Your task to perform on an android device: move a message to another label in the gmail app Image 0: 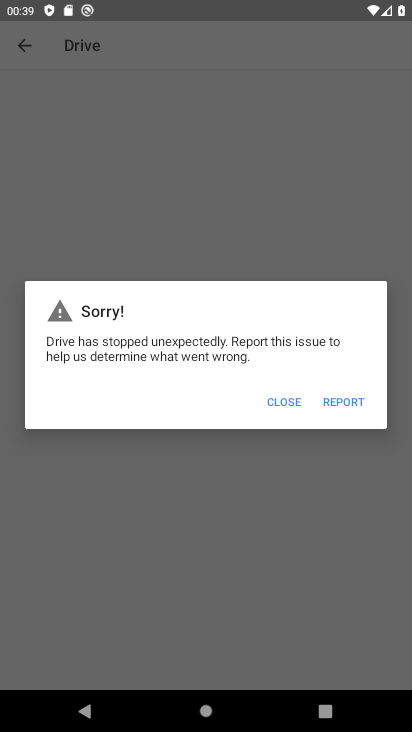
Step 0: press home button
Your task to perform on an android device: move a message to another label in the gmail app Image 1: 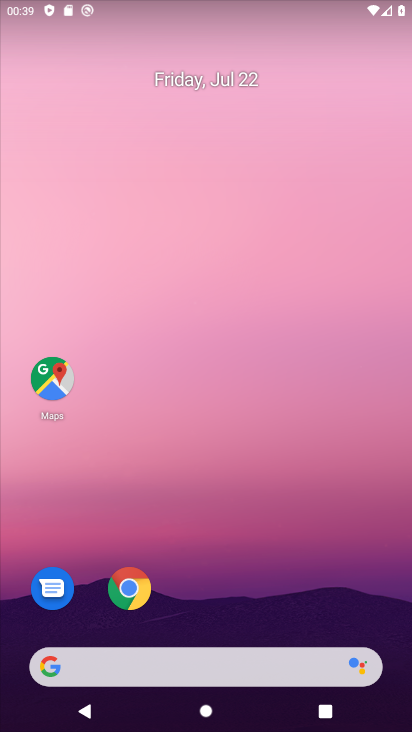
Step 1: drag from (201, 644) to (301, 7)
Your task to perform on an android device: move a message to another label in the gmail app Image 2: 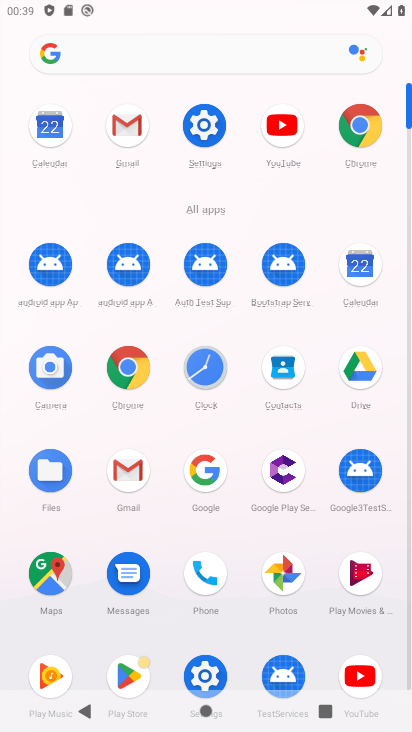
Step 2: click (115, 130)
Your task to perform on an android device: move a message to another label in the gmail app Image 3: 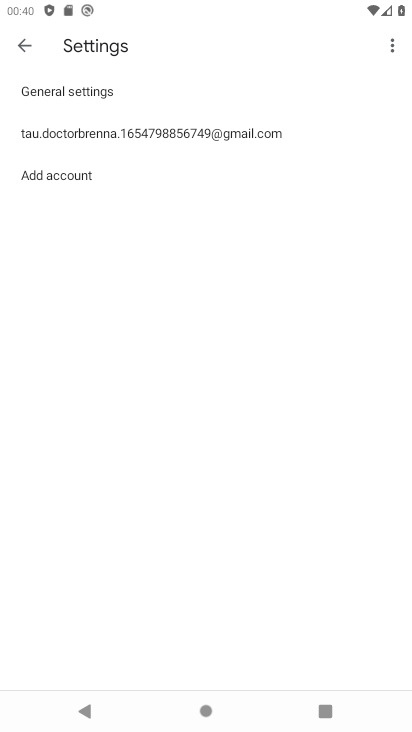
Step 3: click (22, 47)
Your task to perform on an android device: move a message to another label in the gmail app Image 4: 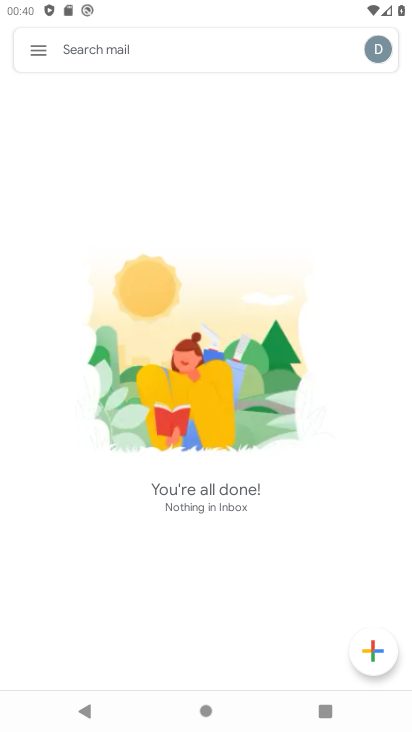
Step 4: click (33, 46)
Your task to perform on an android device: move a message to another label in the gmail app Image 5: 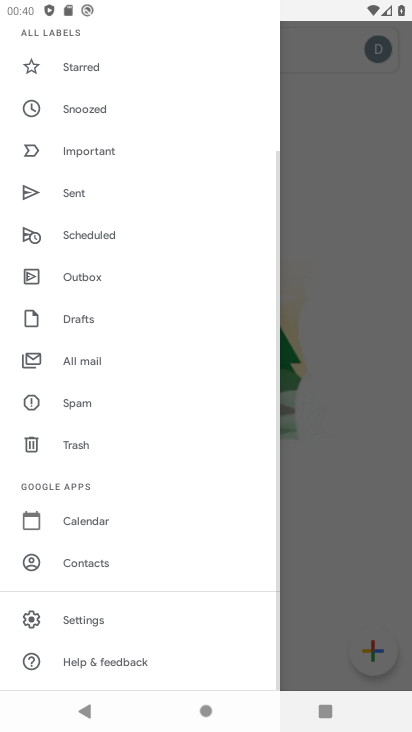
Step 5: click (107, 353)
Your task to perform on an android device: move a message to another label in the gmail app Image 6: 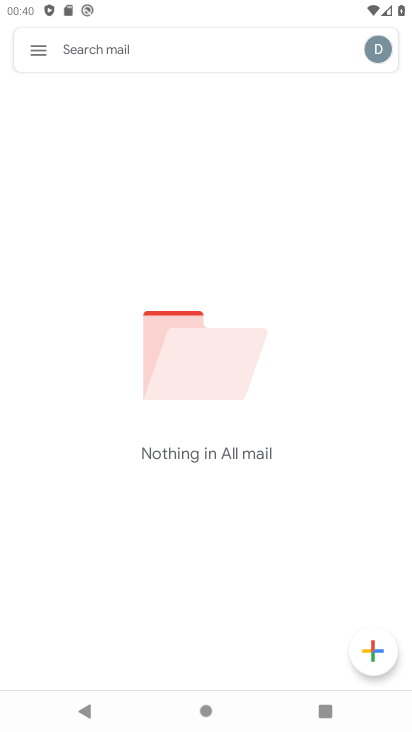
Step 6: task complete